Your task to perform on an android device: Go to Android settings Image 0: 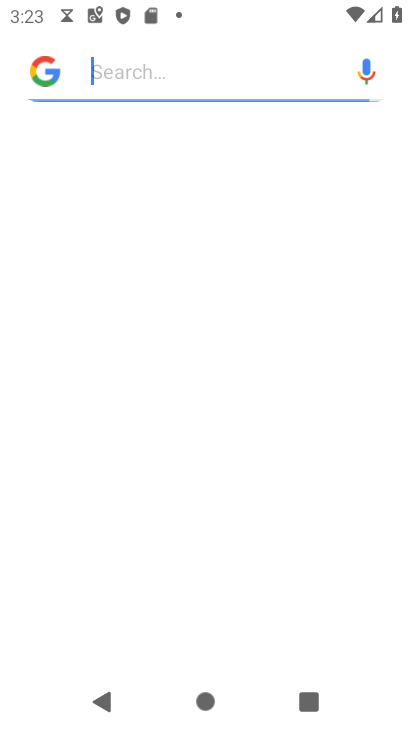
Step 0: press home button
Your task to perform on an android device: Go to Android settings Image 1: 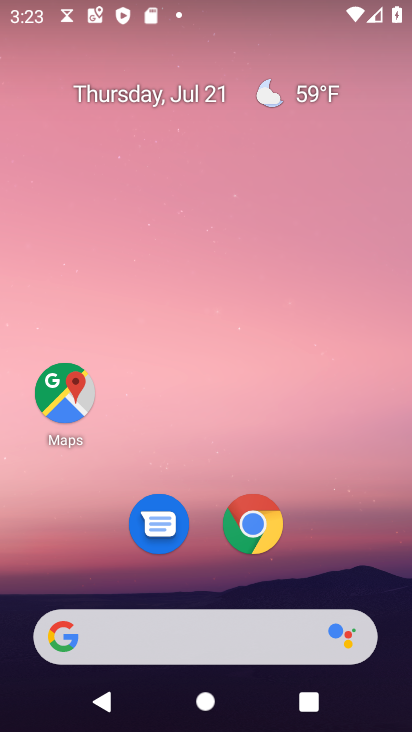
Step 1: drag from (222, 649) to (303, 145)
Your task to perform on an android device: Go to Android settings Image 2: 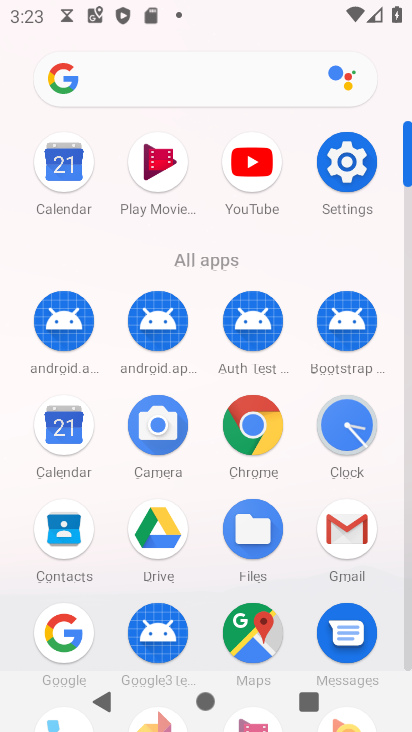
Step 2: click (333, 146)
Your task to perform on an android device: Go to Android settings Image 3: 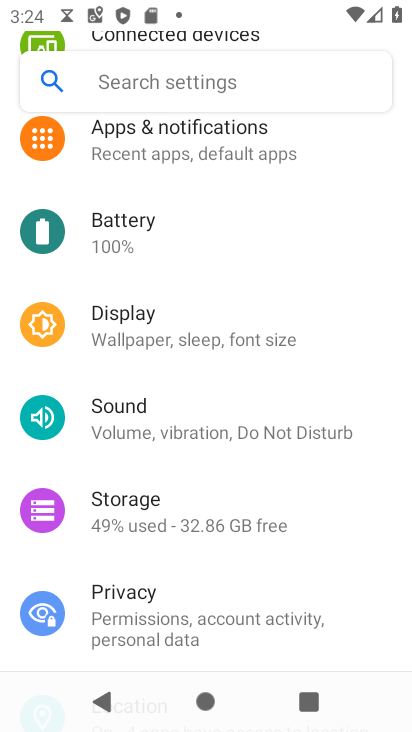
Step 3: task complete